Your task to perform on an android device: check battery use Image 0: 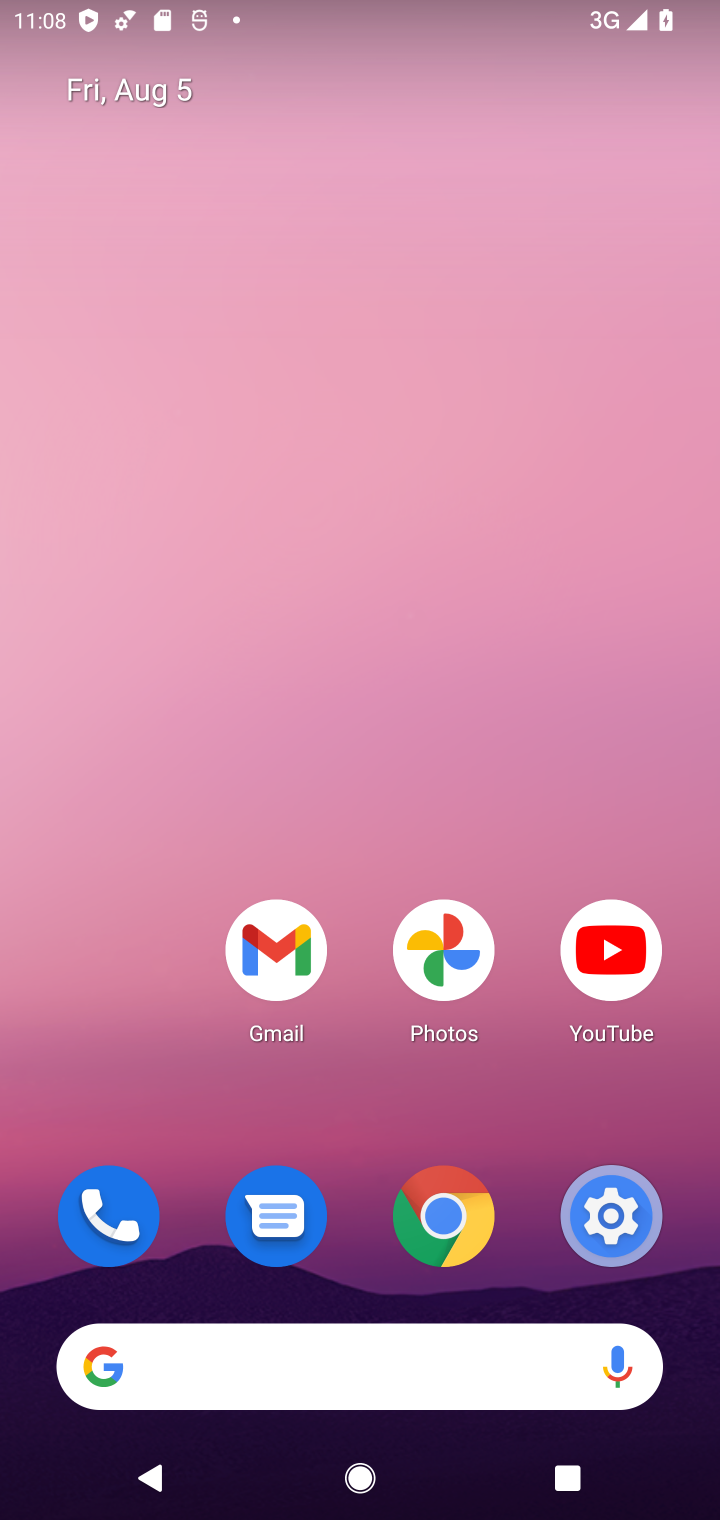
Step 0: click (253, 1333)
Your task to perform on an android device: check battery use Image 1: 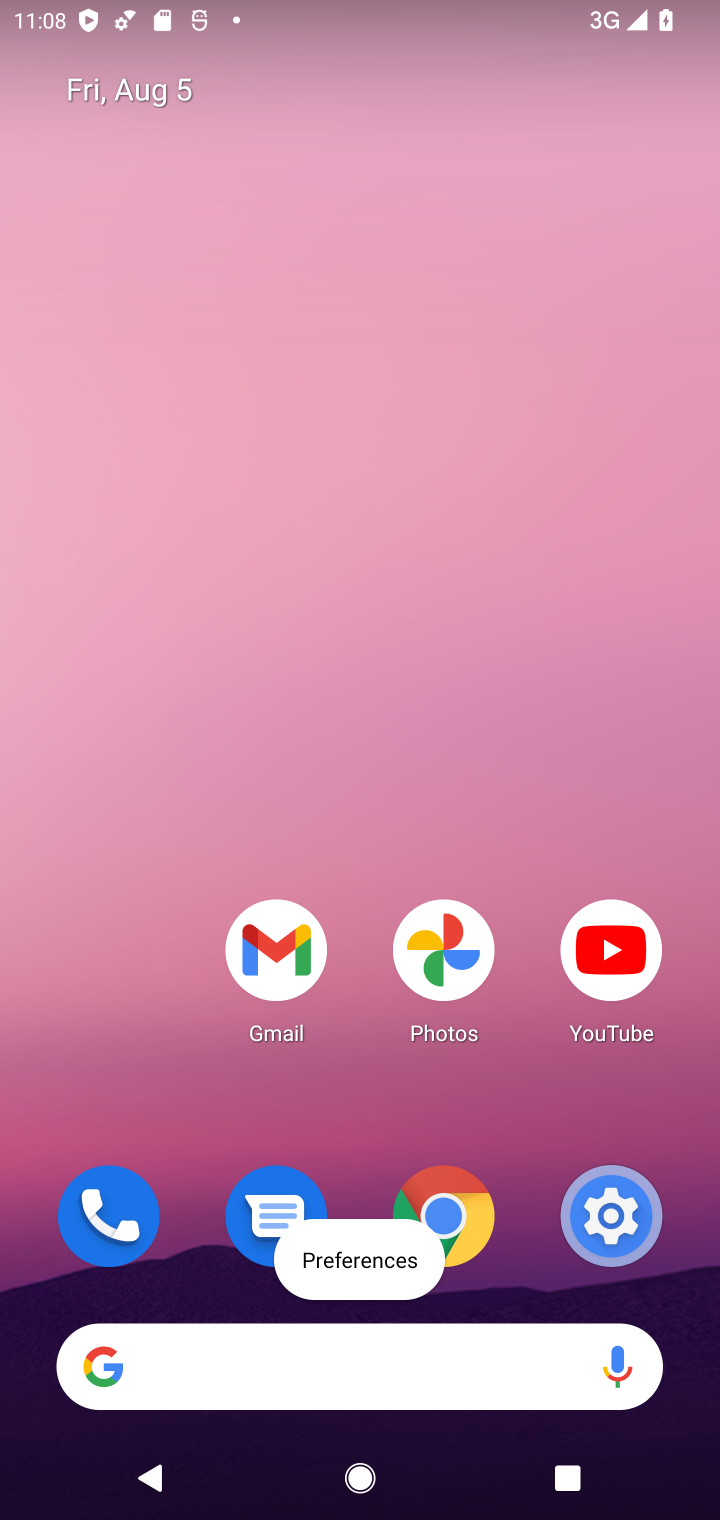
Step 1: drag from (269, 1333) to (294, 371)
Your task to perform on an android device: check battery use Image 2: 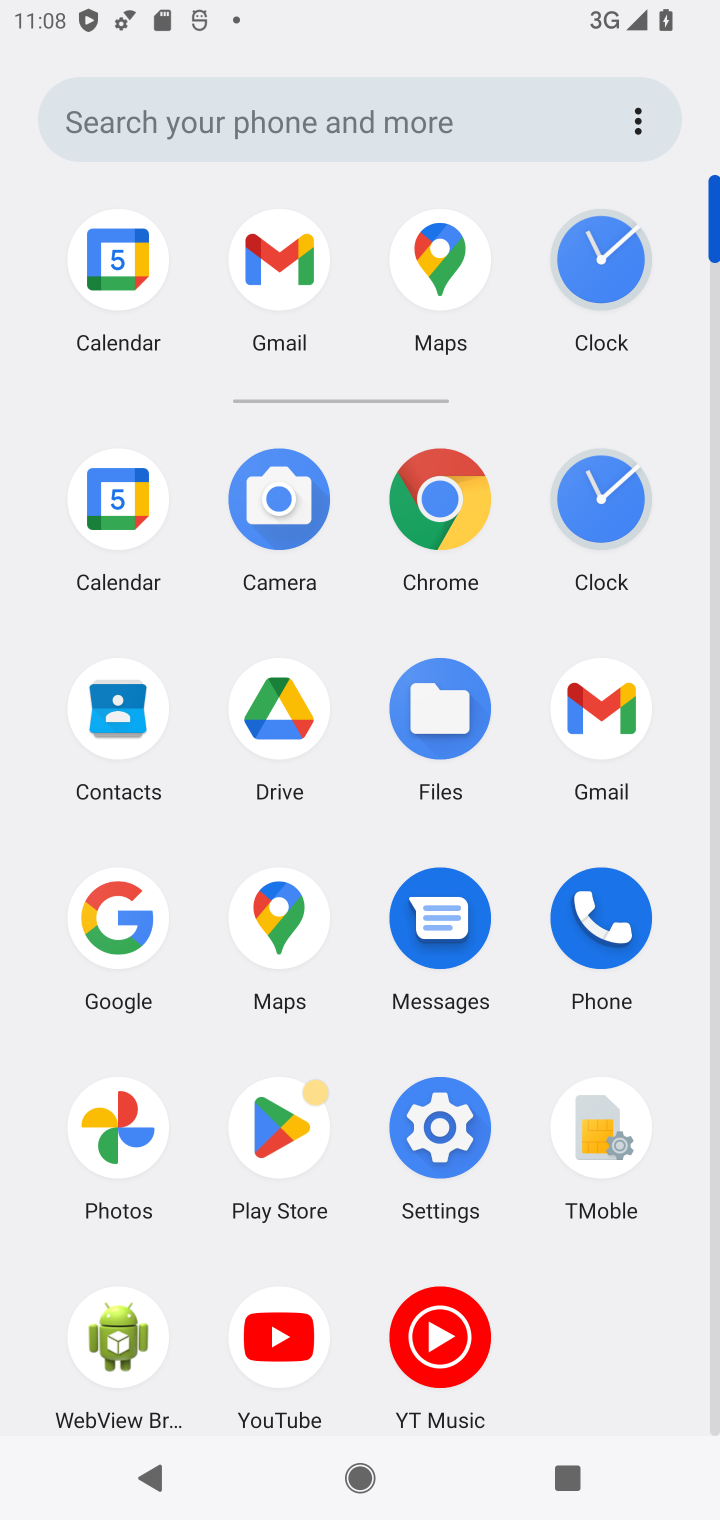
Step 2: click (462, 1106)
Your task to perform on an android device: check battery use Image 3: 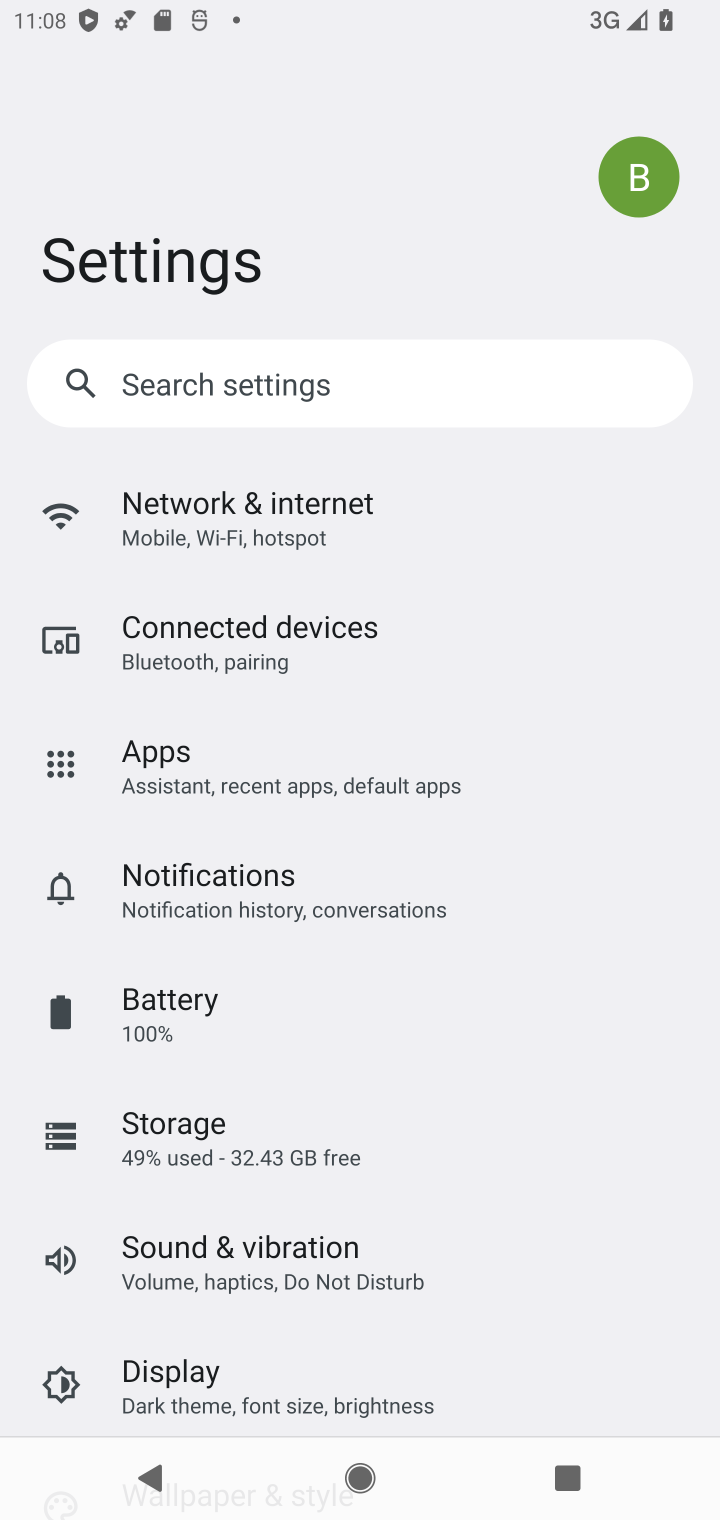
Step 3: click (220, 1001)
Your task to perform on an android device: check battery use Image 4: 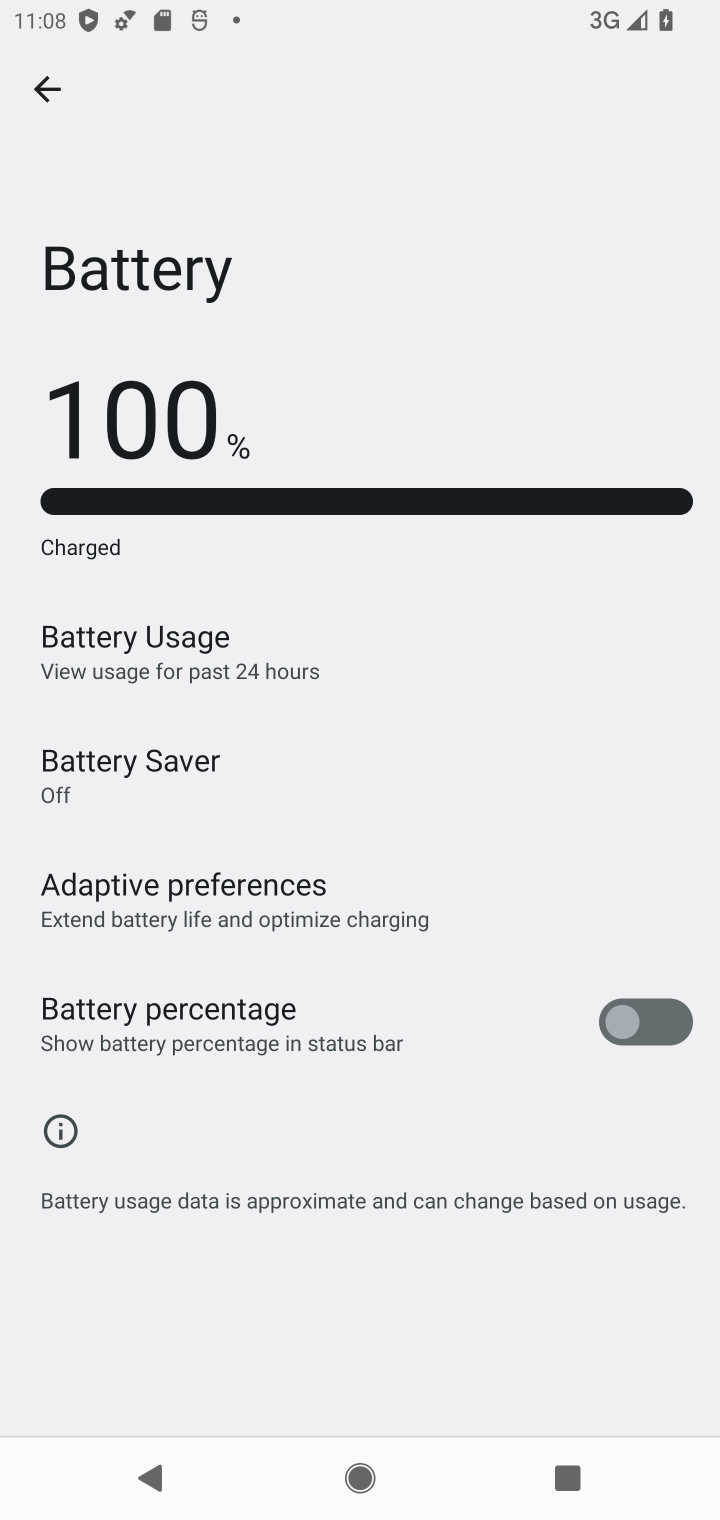
Step 4: task complete